Your task to perform on an android device: open a bookmark in the chrome app Image 0: 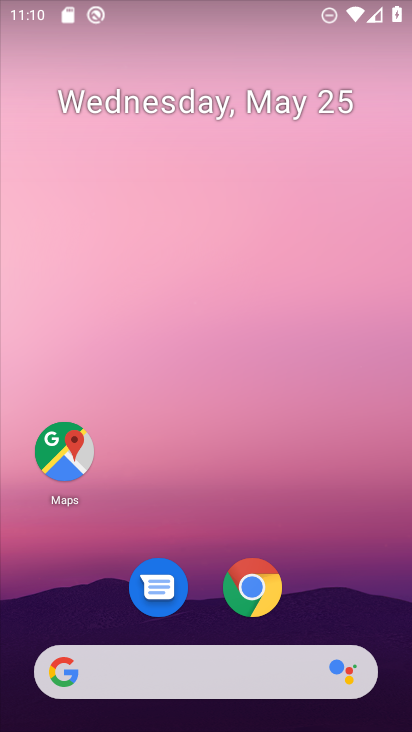
Step 0: drag from (328, 582) to (292, 52)
Your task to perform on an android device: open a bookmark in the chrome app Image 1: 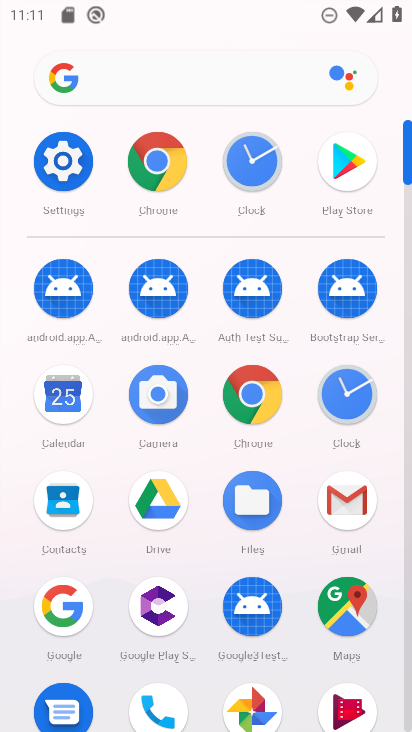
Step 1: drag from (30, 573) to (30, 255)
Your task to perform on an android device: open a bookmark in the chrome app Image 2: 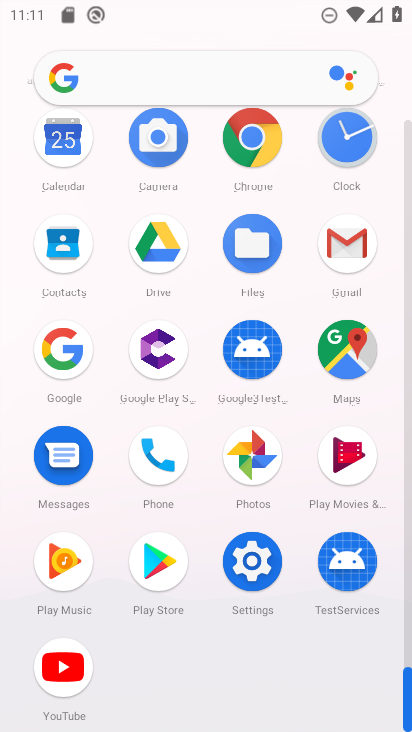
Step 2: click (250, 134)
Your task to perform on an android device: open a bookmark in the chrome app Image 3: 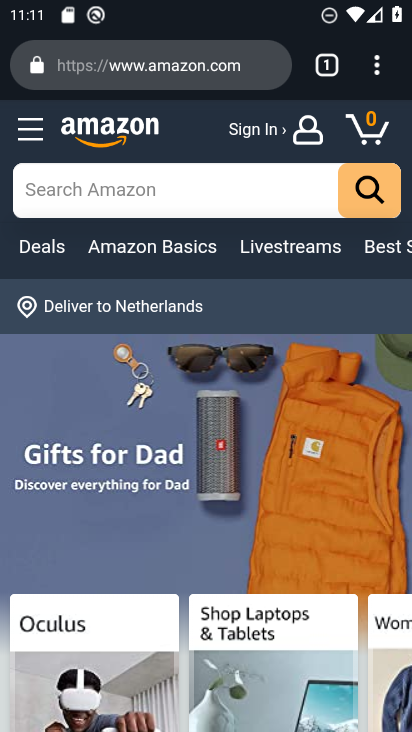
Step 3: task complete